Your task to perform on an android device: Go to battery settings Image 0: 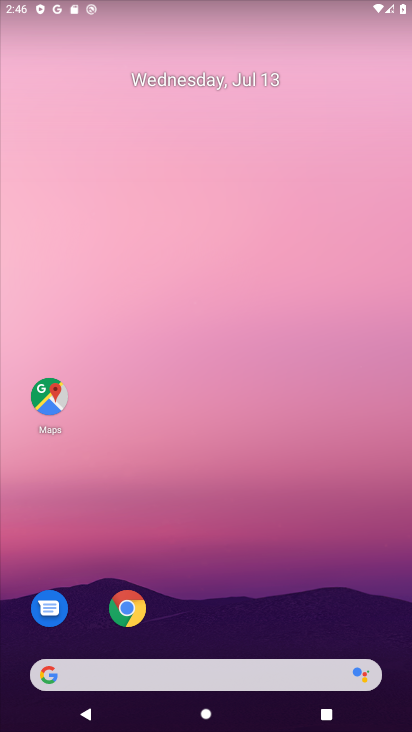
Step 0: drag from (192, 618) to (230, 86)
Your task to perform on an android device: Go to battery settings Image 1: 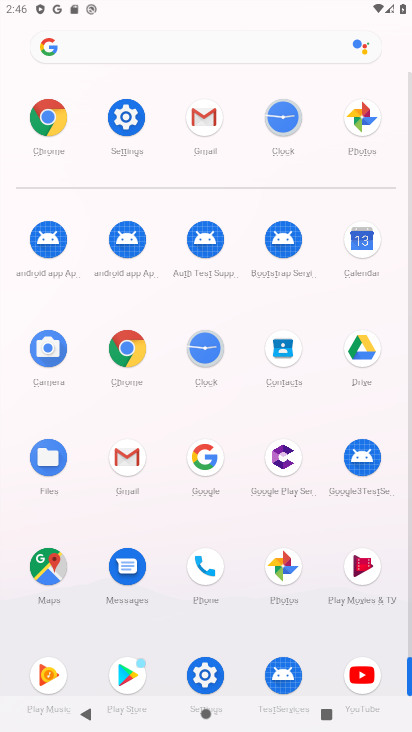
Step 1: click (122, 128)
Your task to perform on an android device: Go to battery settings Image 2: 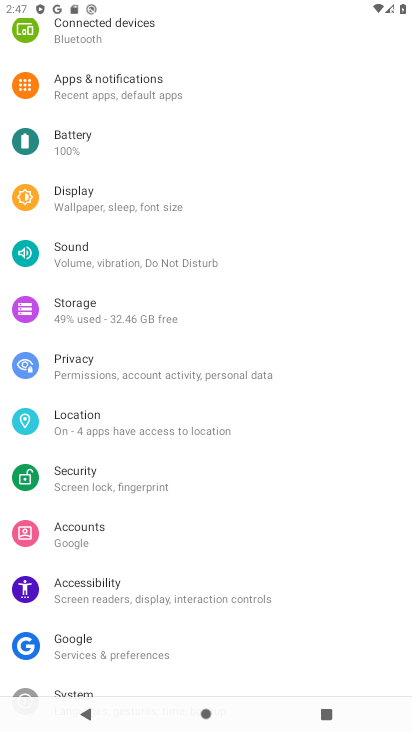
Step 2: click (54, 144)
Your task to perform on an android device: Go to battery settings Image 3: 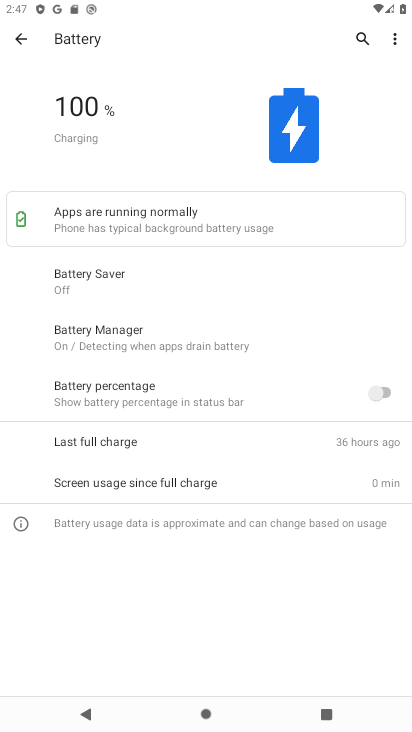
Step 3: task complete